Your task to perform on an android device: delete browsing data in the chrome app Image 0: 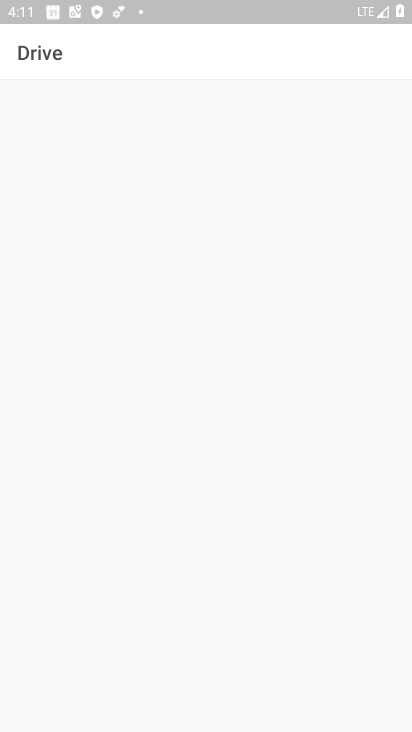
Step 0: press home button
Your task to perform on an android device: delete browsing data in the chrome app Image 1: 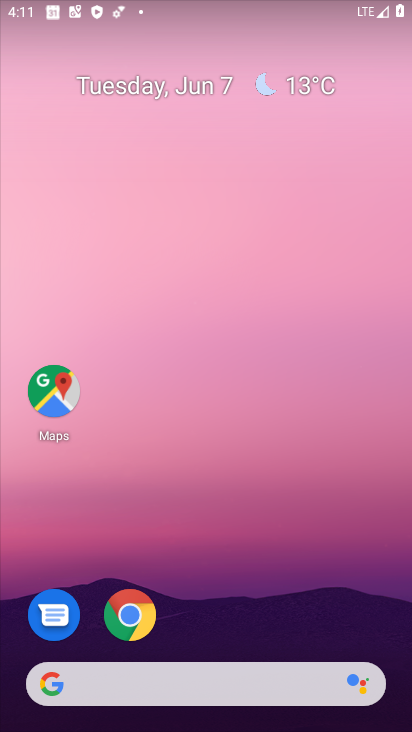
Step 1: click (134, 614)
Your task to perform on an android device: delete browsing data in the chrome app Image 2: 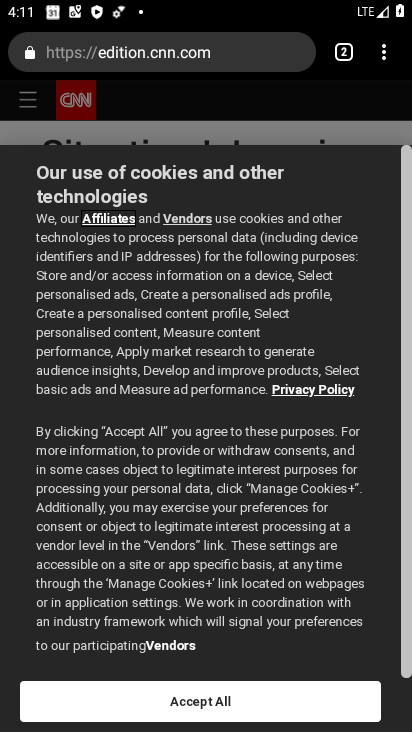
Step 2: click (385, 64)
Your task to perform on an android device: delete browsing data in the chrome app Image 3: 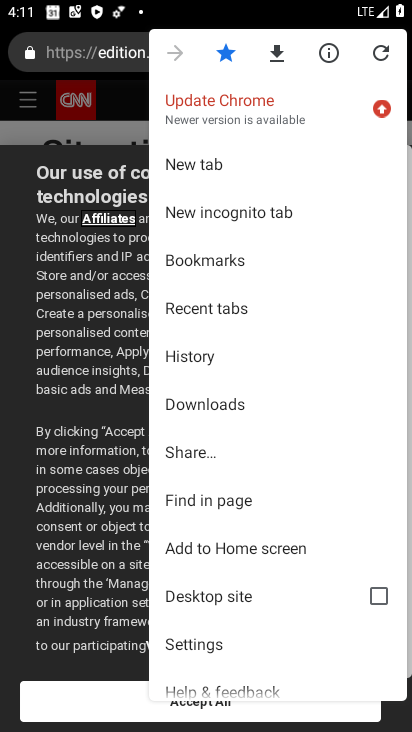
Step 3: click (192, 351)
Your task to perform on an android device: delete browsing data in the chrome app Image 4: 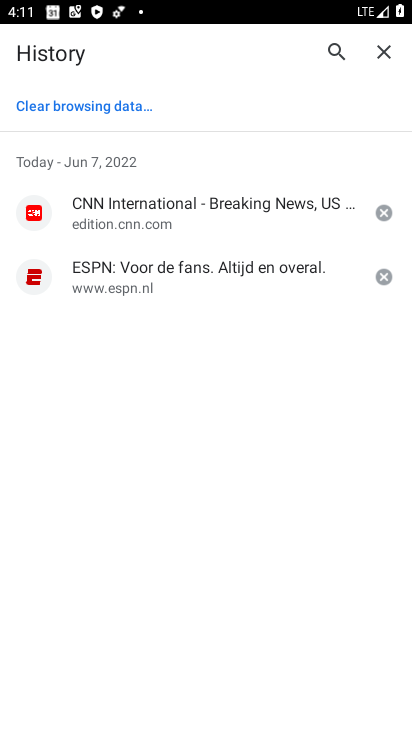
Step 4: click (87, 105)
Your task to perform on an android device: delete browsing data in the chrome app Image 5: 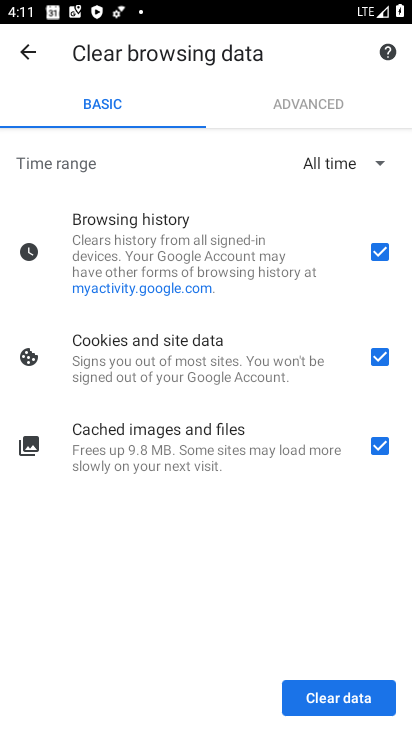
Step 5: click (373, 444)
Your task to perform on an android device: delete browsing data in the chrome app Image 6: 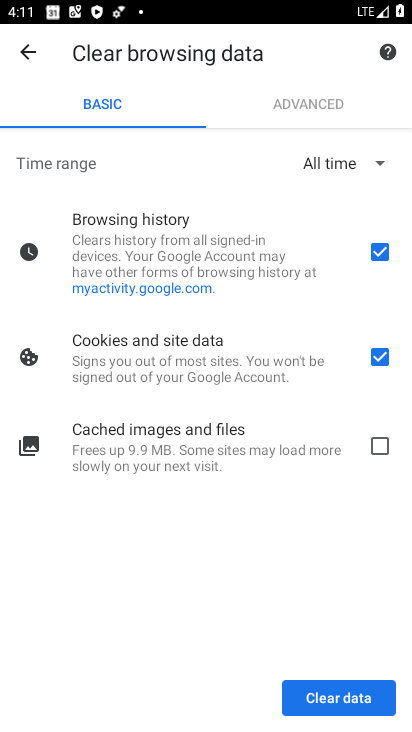
Step 6: click (376, 348)
Your task to perform on an android device: delete browsing data in the chrome app Image 7: 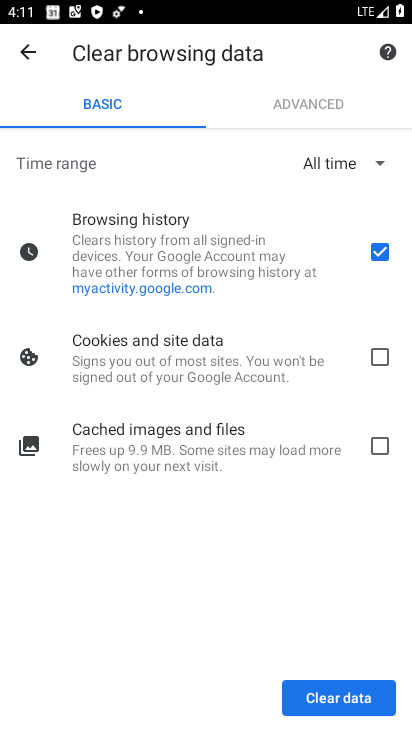
Step 7: click (359, 689)
Your task to perform on an android device: delete browsing data in the chrome app Image 8: 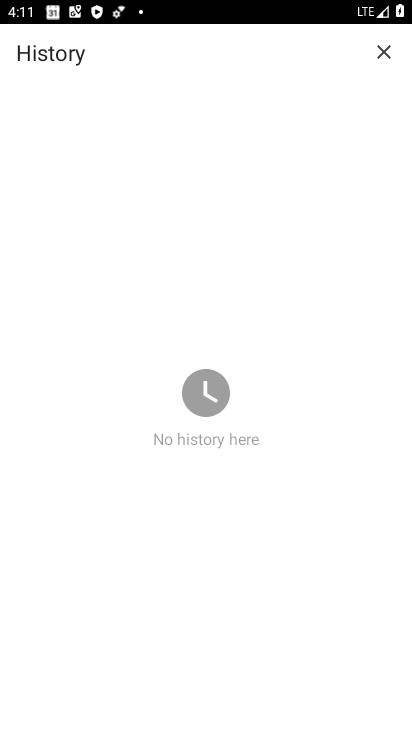
Step 8: task complete